Your task to perform on an android device: Search for Italian restaurants on Maps Image 0: 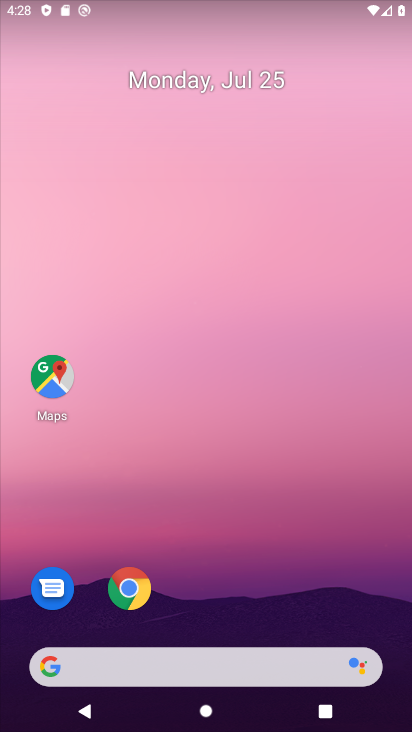
Step 0: drag from (207, 583) to (236, 14)
Your task to perform on an android device: Search for Italian restaurants on Maps Image 1: 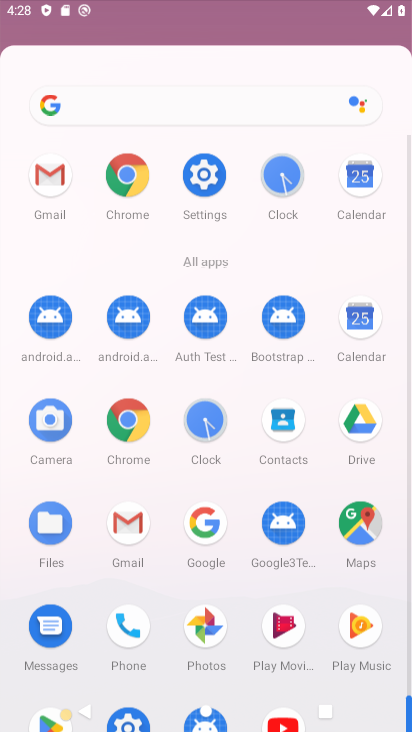
Step 1: drag from (213, 629) to (217, 147)
Your task to perform on an android device: Search for Italian restaurants on Maps Image 2: 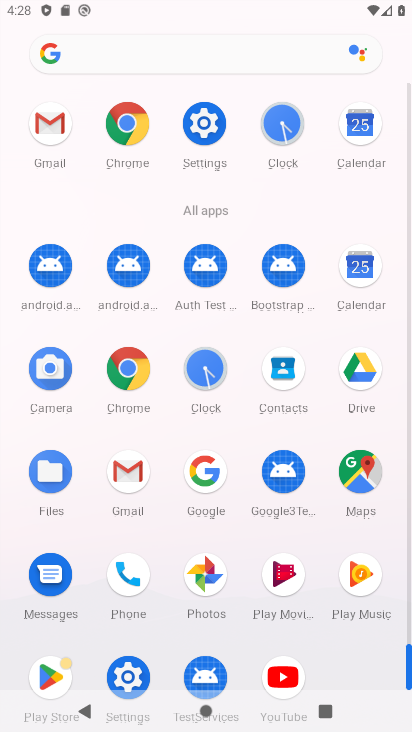
Step 2: drag from (233, 524) to (214, 171)
Your task to perform on an android device: Search for Italian restaurants on Maps Image 3: 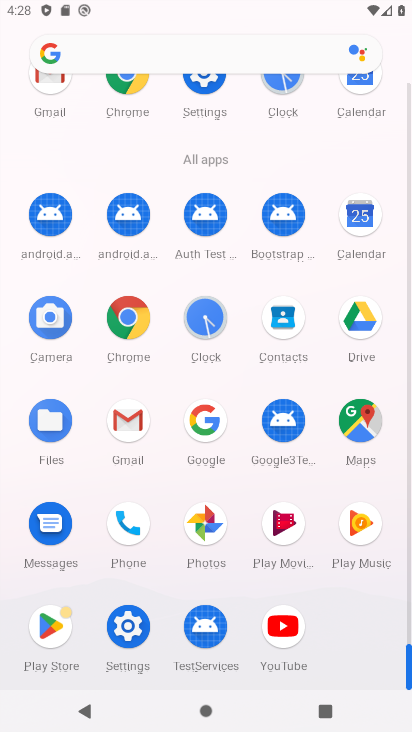
Step 3: click (360, 427)
Your task to perform on an android device: Search for Italian restaurants on Maps Image 4: 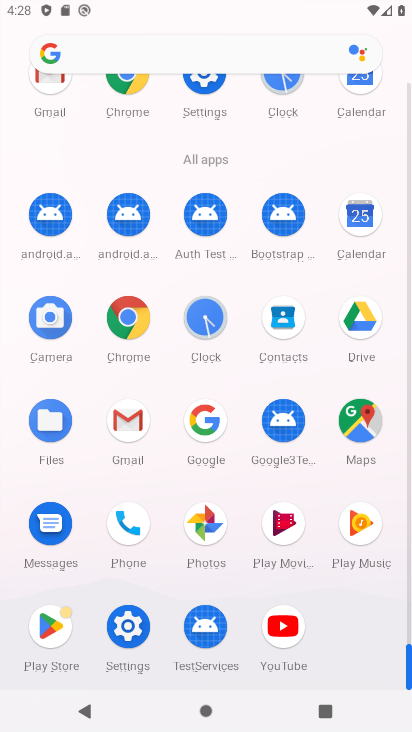
Step 4: click (360, 424)
Your task to perform on an android device: Search for Italian restaurants on Maps Image 5: 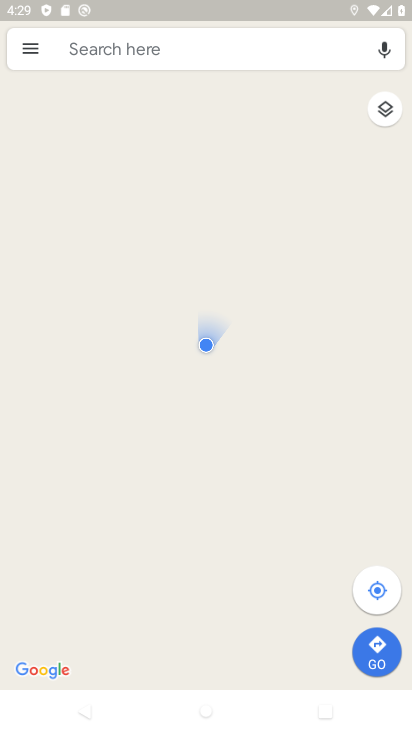
Step 5: click (28, 58)
Your task to perform on an android device: Search for Italian restaurants on Maps Image 6: 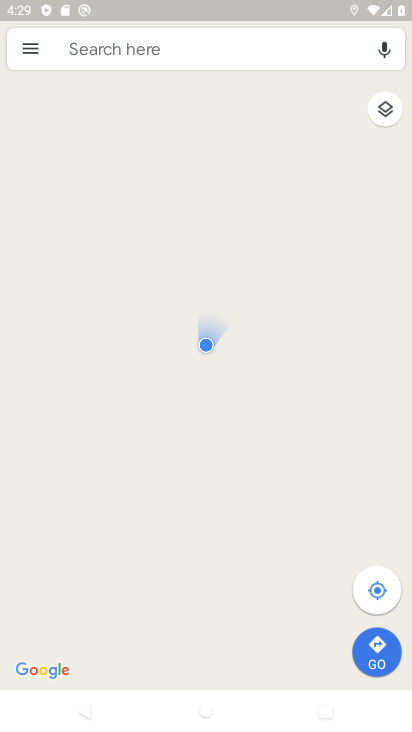
Step 6: click (27, 53)
Your task to perform on an android device: Search for Italian restaurants on Maps Image 7: 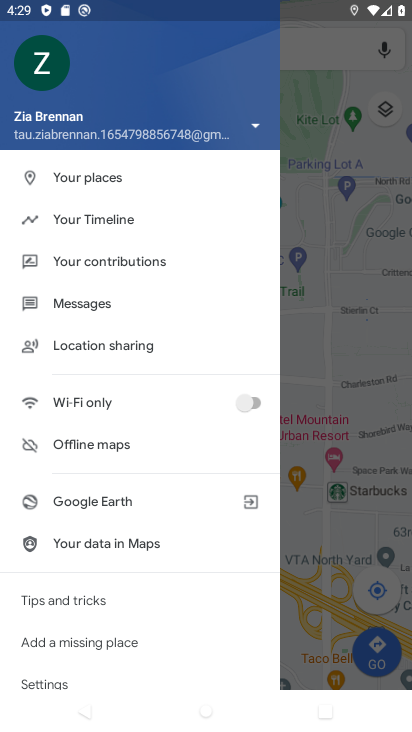
Step 7: click (323, 253)
Your task to perform on an android device: Search for Italian restaurants on Maps Image 8: 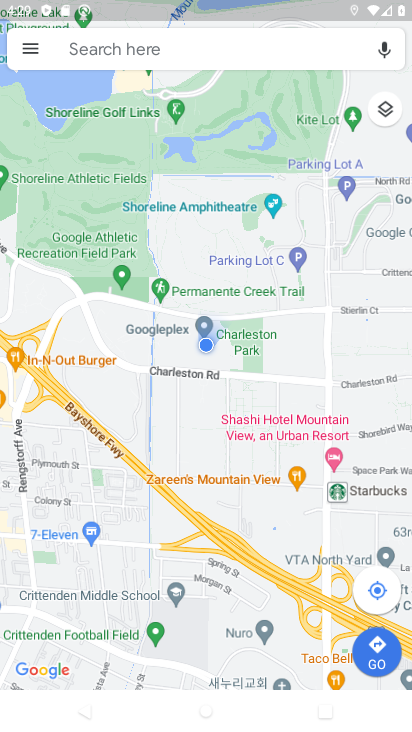
Step 8: click (72, 52)
Your task to perform on an android device: Search for Italian restaurants on Maps Image 9: 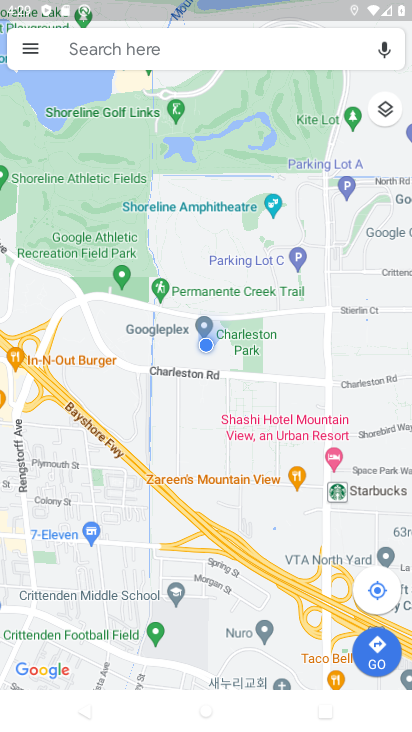
Step 9: click (73, 51)
Your task to perform on an android device: Search for Italian restaurants on Maps Image 10: 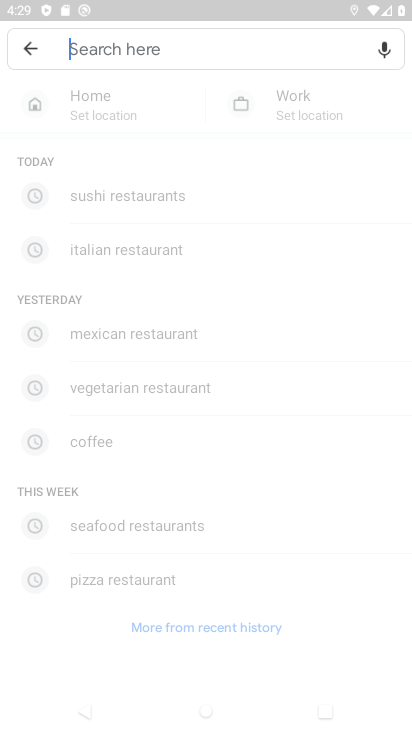
Step 10: click (76, 51)
Your task to perform on an android device: Search for Italian restaurants on Maps Image 11: 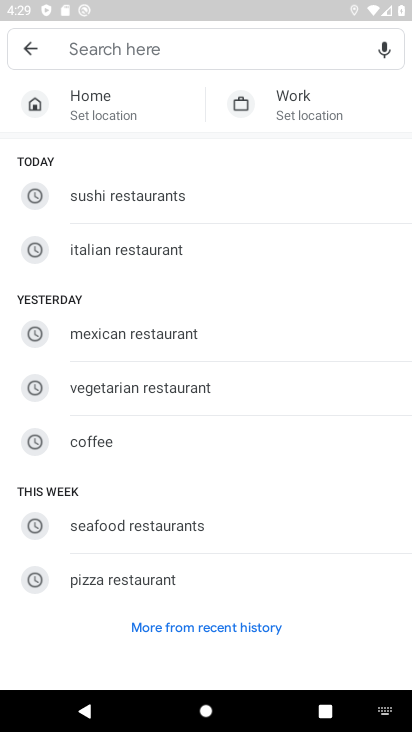
Step 11: click (138, 268)
Your task to perform on an android device: Search for Italian restaurants on Maps Image 12: 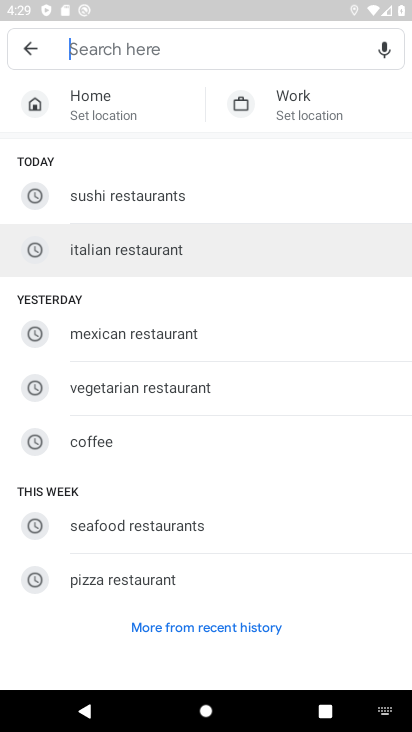
Step 12: click (138, 268)
Your task to perform on an android device: Search for Italian restaurants on Maps Image 13: 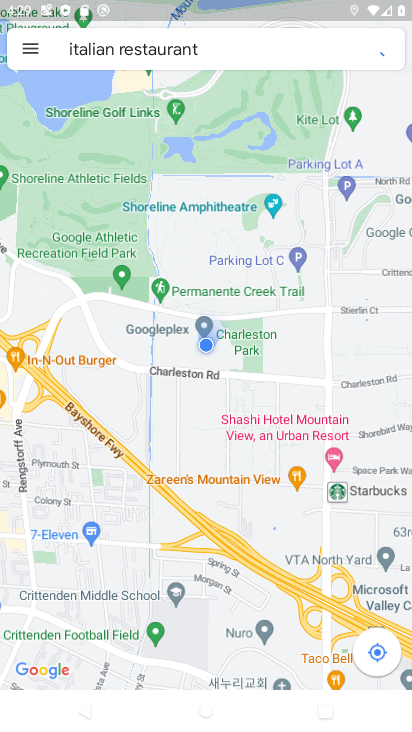
Step 13: task complete